Your task to perform on an android device: open a bookmark in the chrome app Image 0: 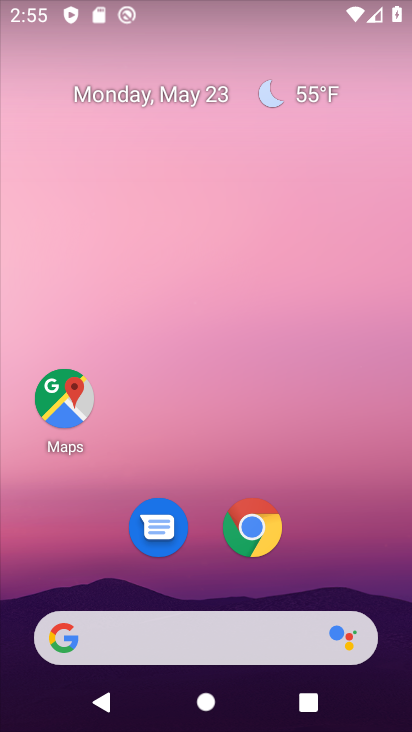
Step 0: press home button
Your task to perform on an android device: open a bookmark in the chrome app Image 1: 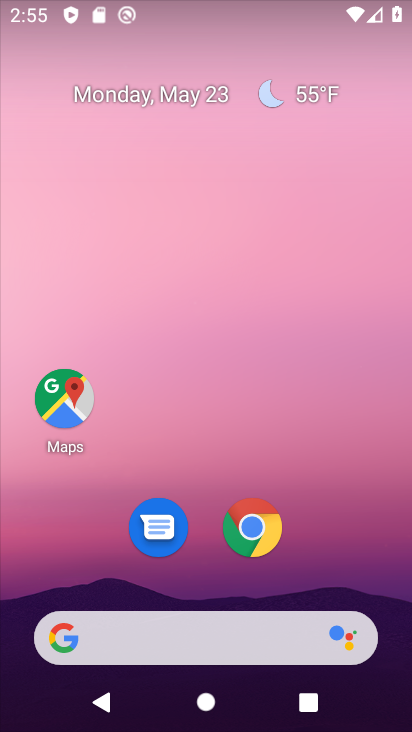
Step 1: click (248, 520)
Your task to perform on an android device: open a bookmark in the chrome app Image 2: 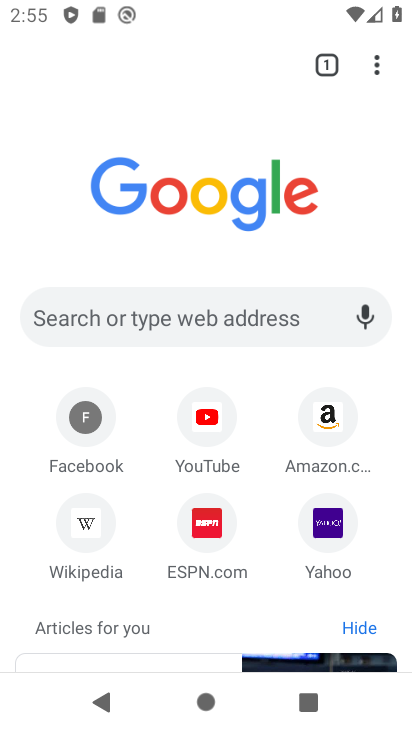
Step 2: click (376, 70)
Your task to perform on an android device: open a bookmark in the chrome app Image 3: 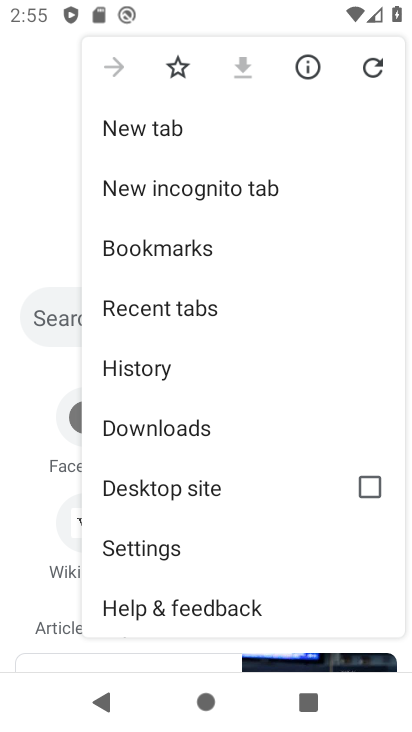
Step 3: click (216, 247)
Your task to perform on an android device: open a bookmark in the chrome app Image 4: 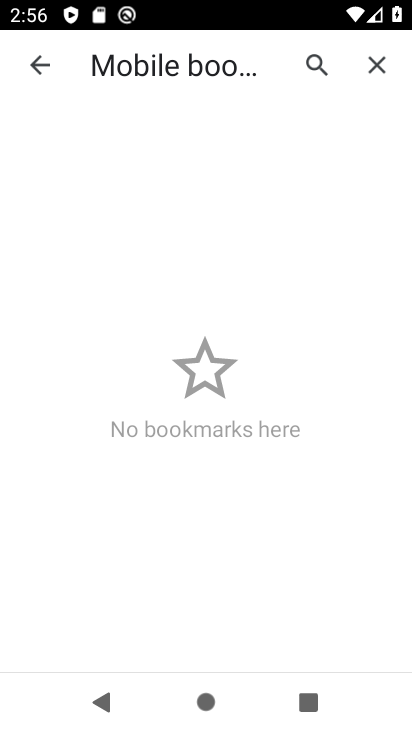
Step 4: task complete